Your task to perform on an android device: Do I have any events this weekend? Image 0: 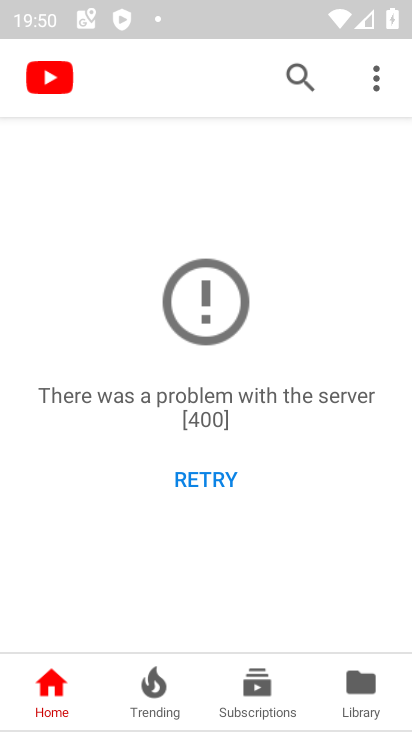
Step 0: press home button
Your task to perform on an android device: Do I have any events this weekend? Image 1: 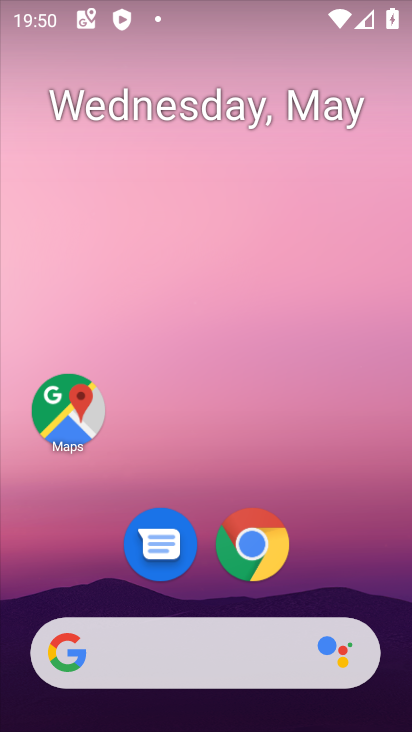
Step 1: click (164, 103)
Your task to perform on an android device: Do I have any events this weekend? Image 2: 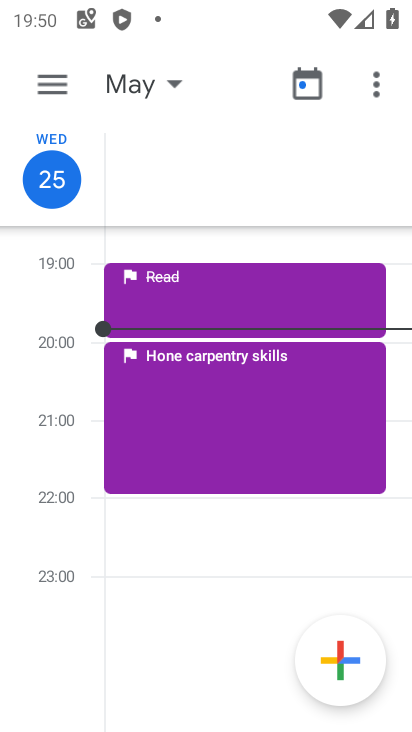
Step 2: click (146, 96)
Your task to perform on an android device: Do I have any events this weekend? Image 3: 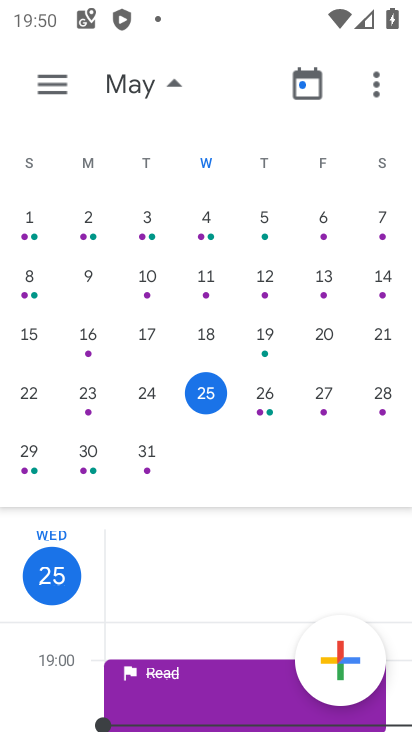
Step 3: click (395, 396)
Your task to perform on an android device: Do I have any events this weekend? Image 4: 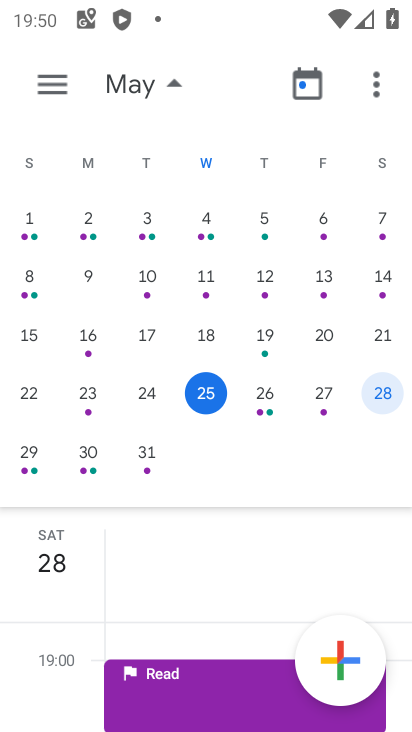
Step 4: click (180, 712)
Your task to perform on an android device: Do I have any events this weekend? Image 5: 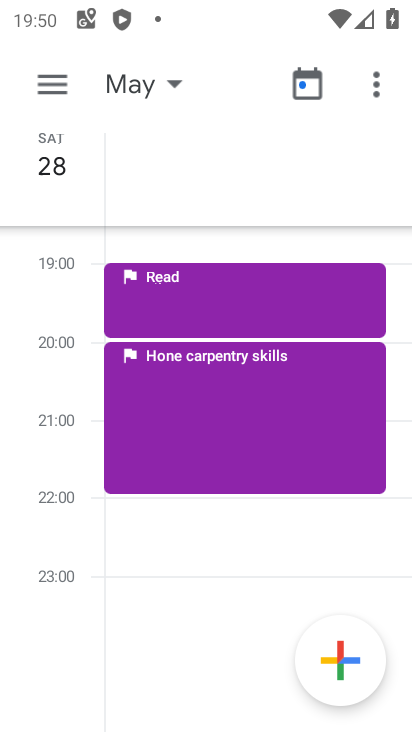
Step 5: click (180, 712)
Your task to perform on an android device: Do I have any events this weekend? Image 6: 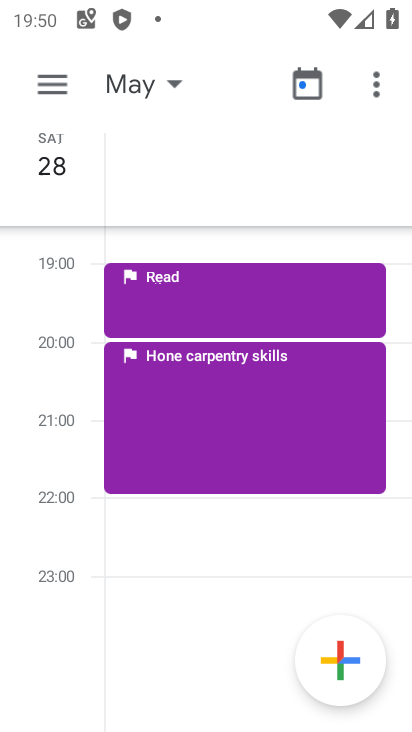
Step 6: task complete